Your task to perform on an android device: Open the calendar and show me this week's events Image 0: 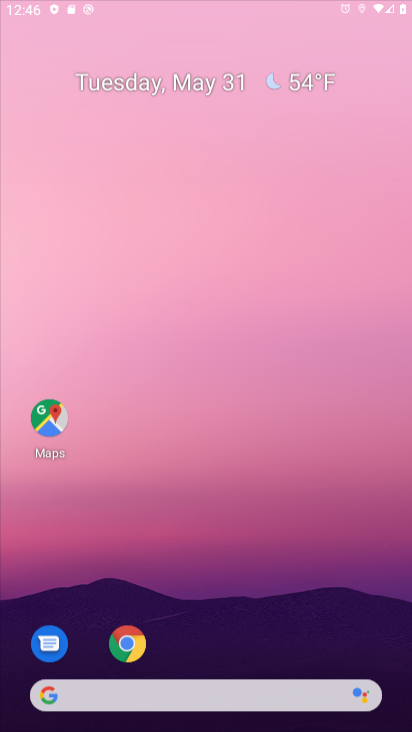
Step 0: press home button
Your task to perform on an android device: Open the calendar and show me this week's events Image 1: 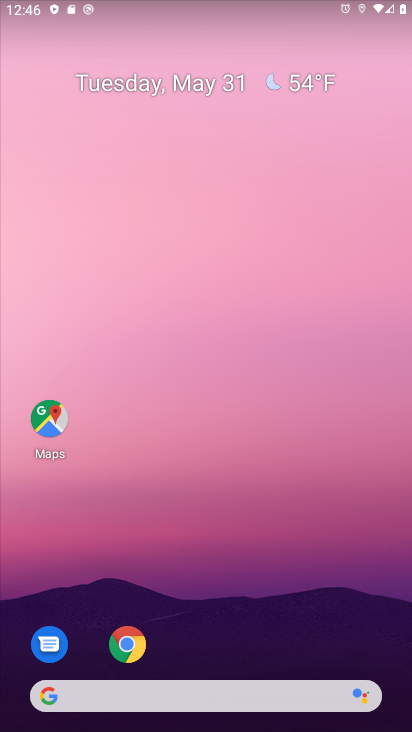
Step 1: drag from (201, 634) to (207, 275)
Your task to perform on an android device: Open the calendar and show me this week's events Image 2: 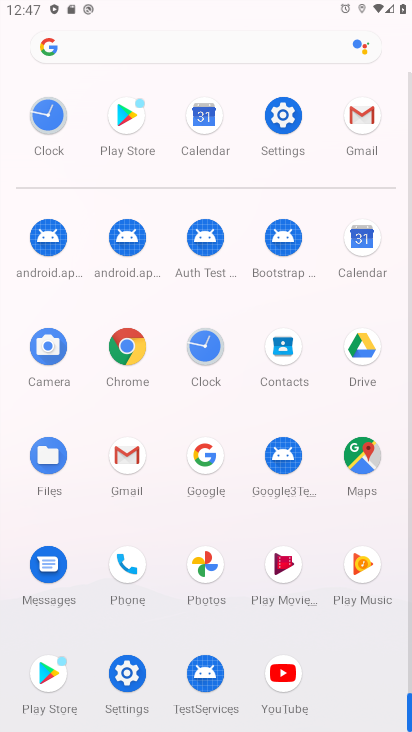
Step 2: click (366, 242)
Your task to perform on an android device: Open the calendar and show me this week's events Image 3: 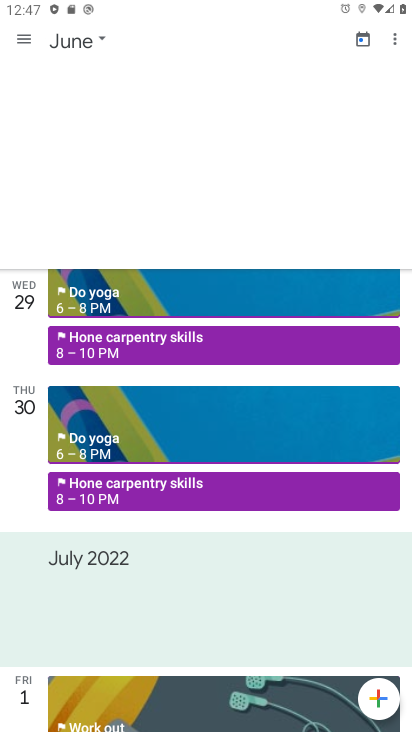
Step 3: task complete